Your task to perform on an android device: Search for sushi restaurants on Maps Image 0: 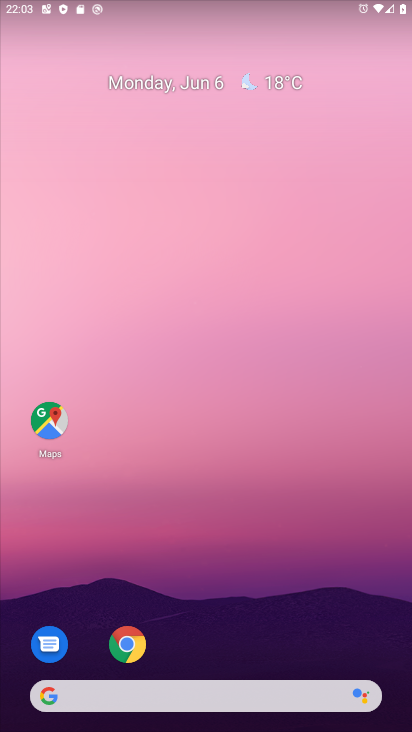
Step 0: press home button
Your task to perform on an android device: Search for sushi restaurants on Maps Image 1: 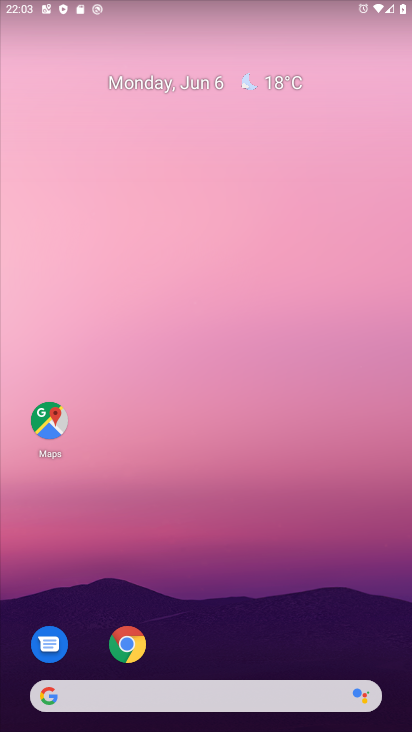
Step 1: drag from (309, 616) to (297, 131)
Your task to perform on an android device: Search for sushi restaurants on Maps Image 2: 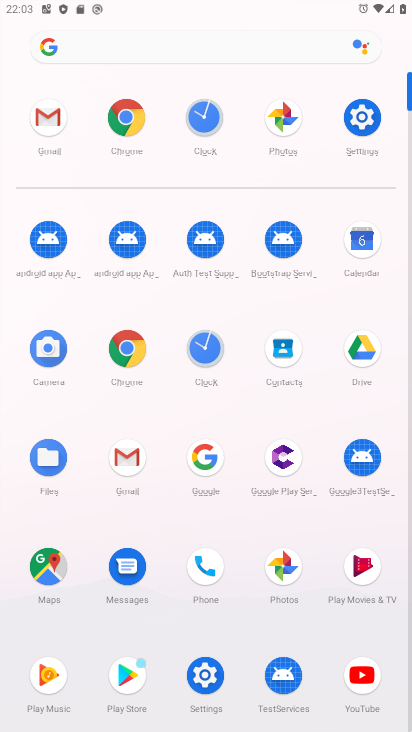
Step 2: click (60, 563)
Your task to perform on an android device: Search for sushi restaurants on Maps Image 3: 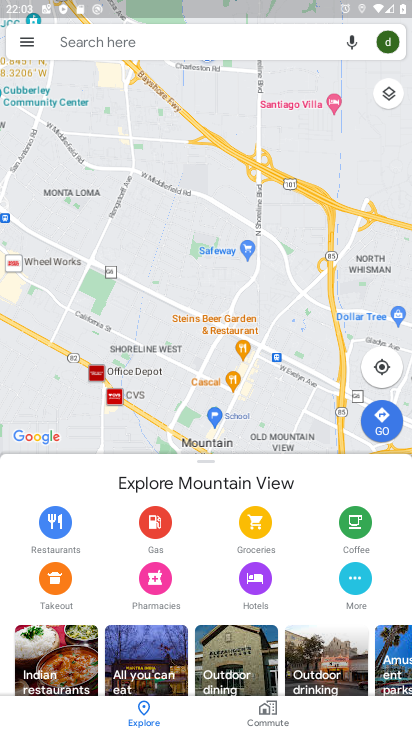
Step 3: click (220, 57)
Your task to perform on an android device: Search for sushi restaurants on Maps Image 4: 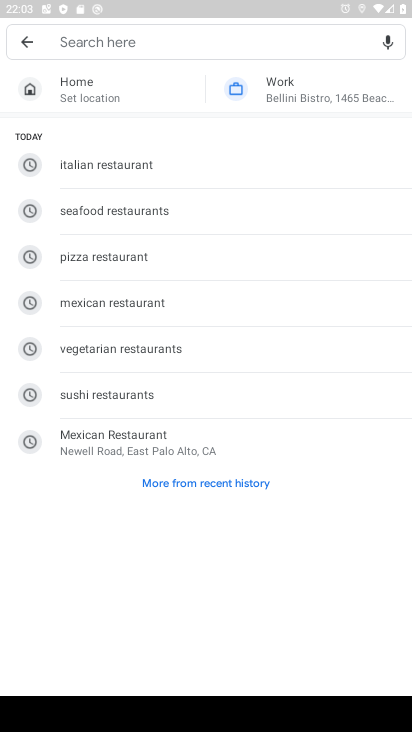
Step 4: click (172, 391)
Your task to perform on an android device: Search for sushi restaurants on Maps Image 5: 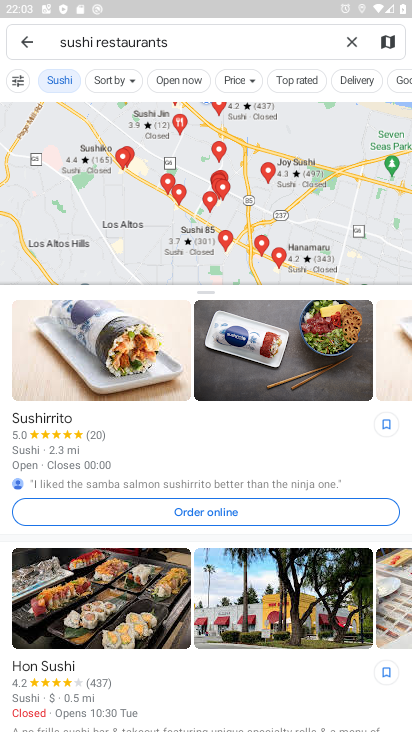
Step 5: task complete